Your task to perform on an android device: see creations saved in the google photos Image 0: 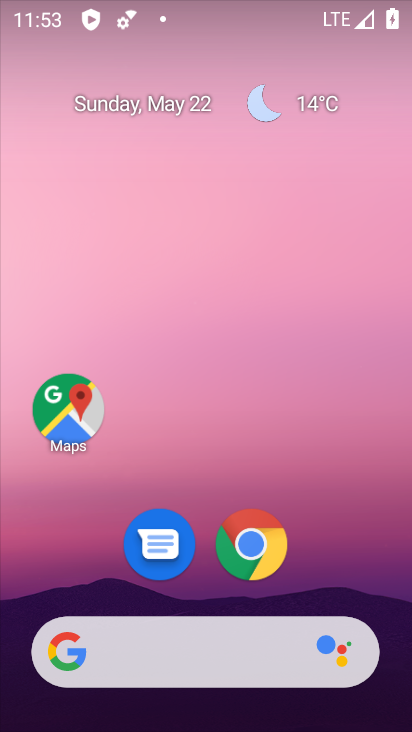
Step 0: drag from (325, 566) to (205, 32)
Your task to perform on an android device: see creations saved in the google photos Image 1: 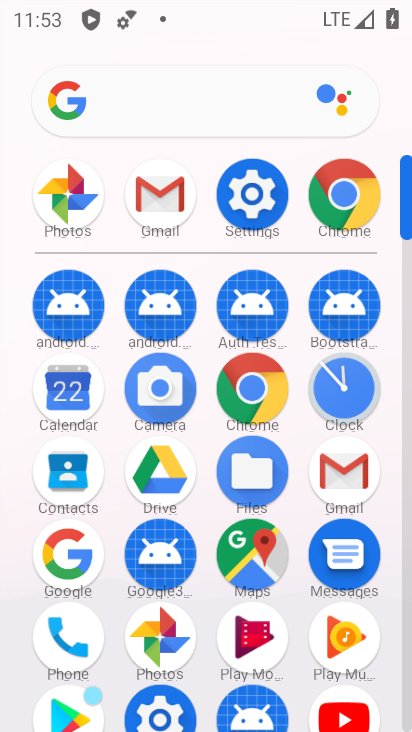
Step 1: press home button
Your task to perform on an android device: see creations saved in the google photos Image 2: 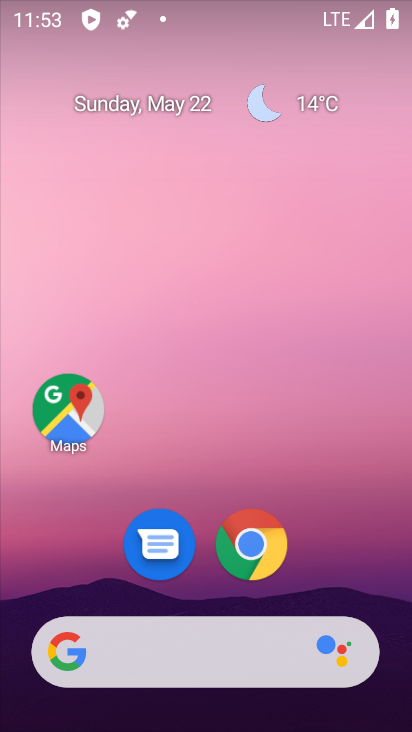
Step 2: drag from (306, 557) to (258, 178)
Your task to perform on an android device: see creations saved in the google photos Image 3: 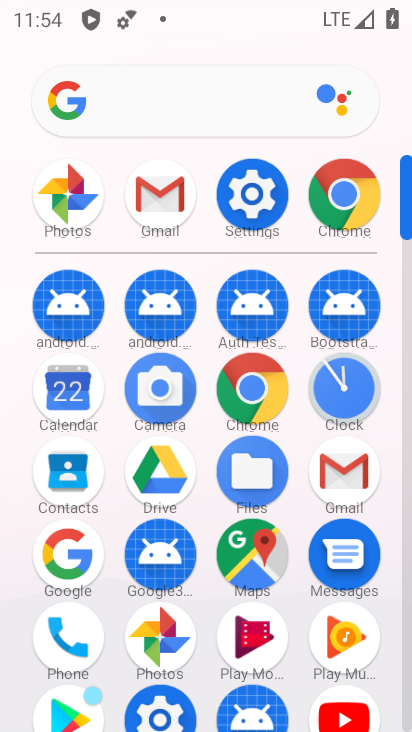
Step 3: drag from (275, 597) to (262, 414)
Your task to perform on an android device: see creations saved in the google photos Image 4: 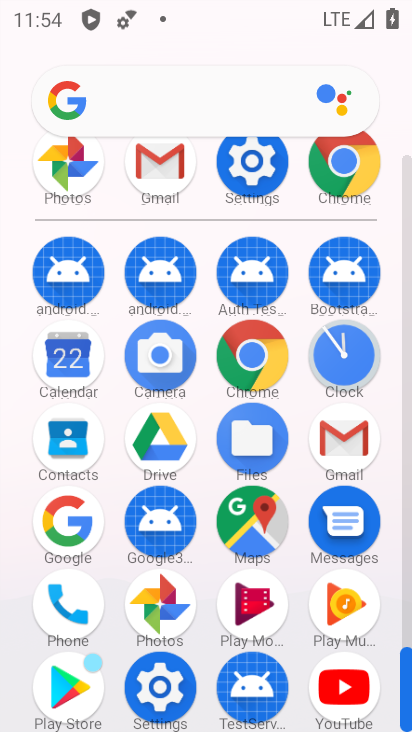
Step 4: drag from (281, 317) to (270, 567)
Your task to perform on an android device: see creations saved in the google photos Image 5: 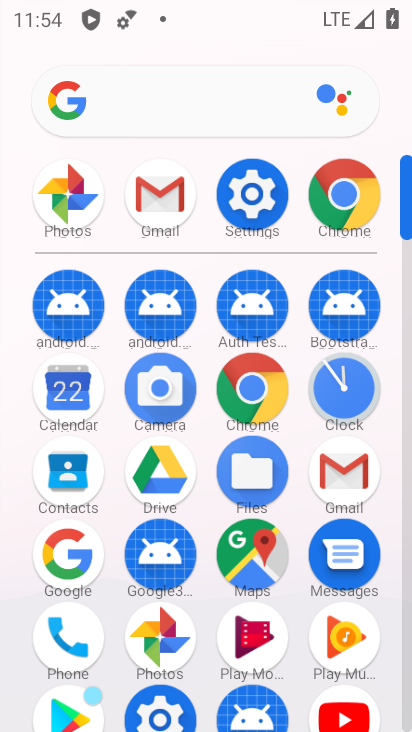
Step 5: drag from (279, 646) to (280, 394)
Your task to perform on an android device: see creations saved in the google photos Image 6: 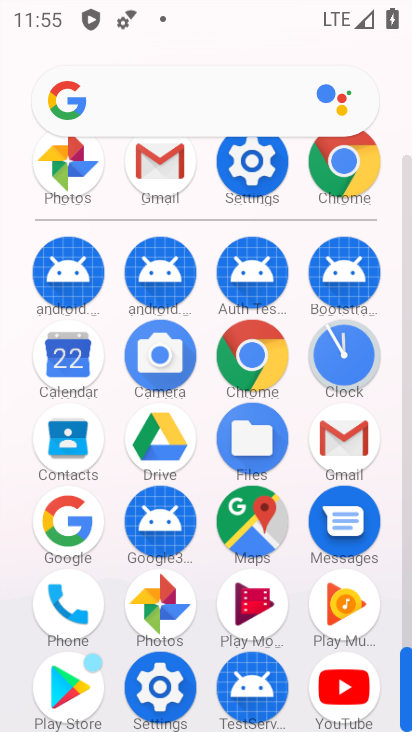
Step 6: drag from (125, 472) to (147, 217)
Your task to perform on an android device: see creations saved in the google photos Image 7: 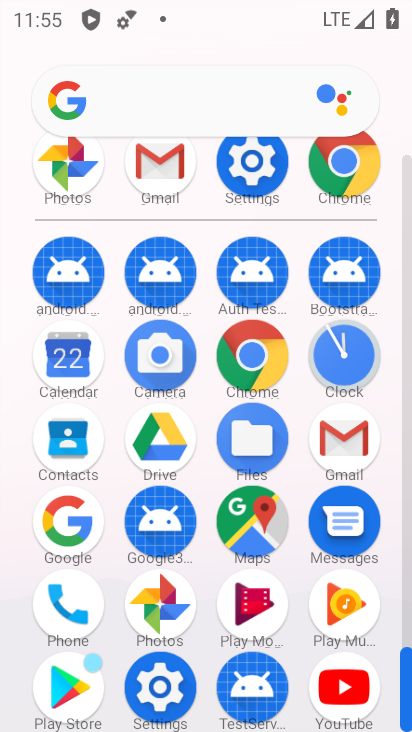
Step 7: drag from (269, 243) to (249, 565)
Your task to perform on an android device: see creations saved in the google photos Image 8: 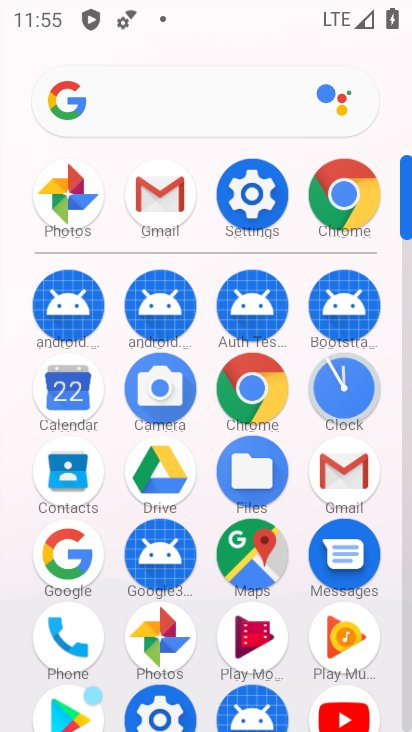
Step 8: drag from (206, 689) to (198, 389)
Your task to perform on an android device: see creations saved in the google photos Image 9: 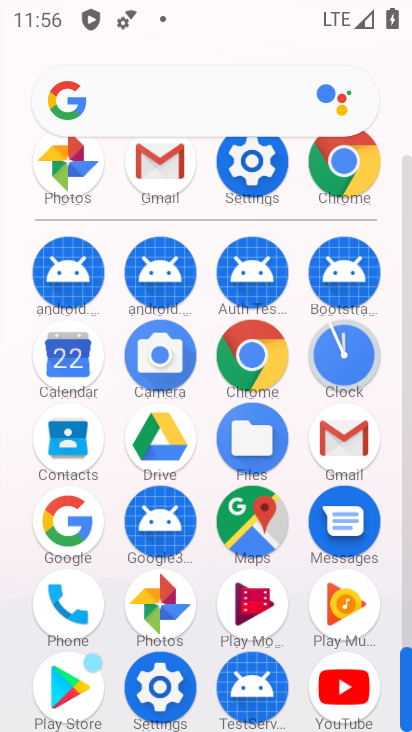
Step 9: drag from (207, 284) to (198, 466)
Your task to perform on an android device: see creations saved in the google photos Image 10: 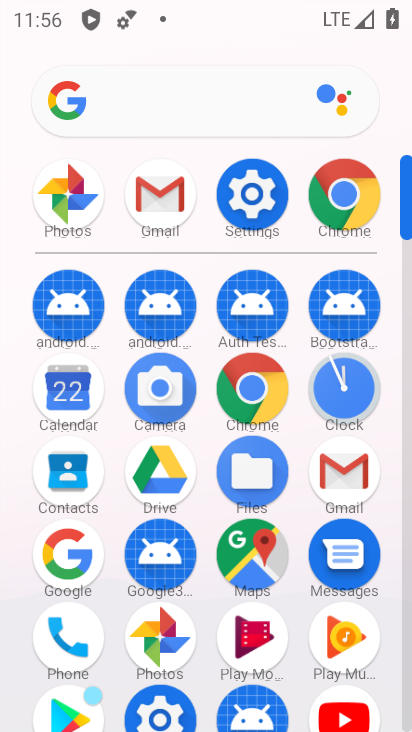
Step 10: drag from (198, 610) to (198, 398)
Your task to perform on an android device: see creations saved in the google photos Image 11: 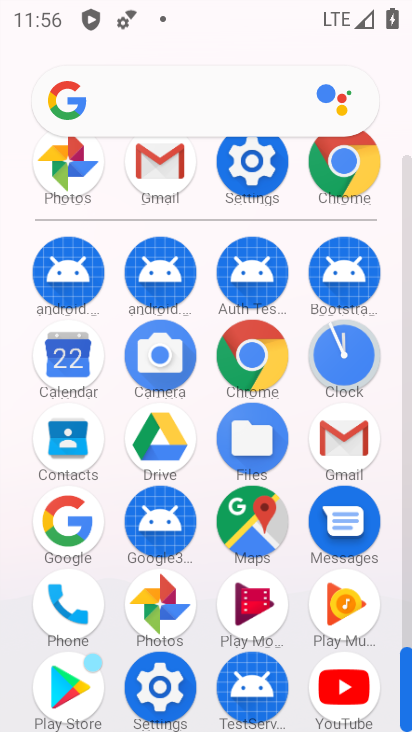
Step 11: drag from (214, 293) to (182, 537)
Your task to perform on an android device: see creations saved in the google photos Image 12: 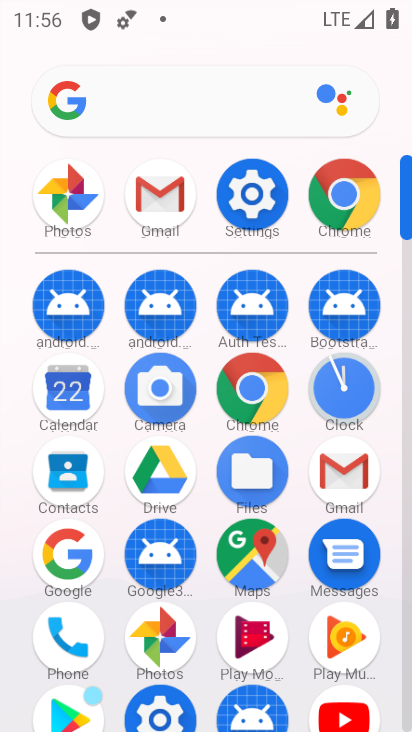
Step 12: drag from (193, 569) to (199, 381)
Your task to perform on an android device: see creations saved in the google photos Image 13: 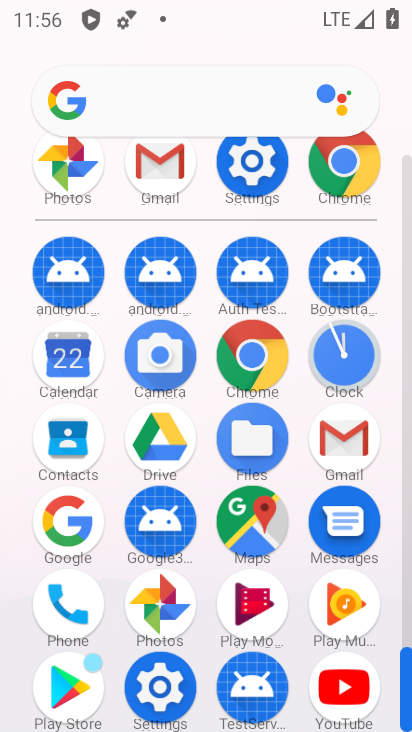
Step 13: click (163, 606)
Your task to perform on an android device: see creations saved in the google photos Image 14: 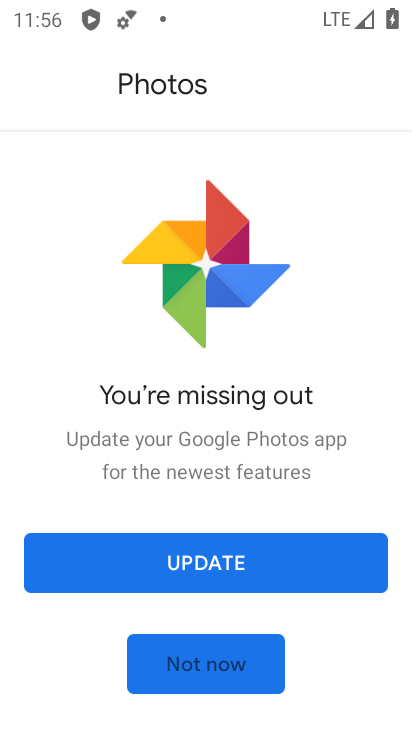
Step 14: click (187, 684)
Your task to perform on an android device: see creations saved in the google photos Image 15: 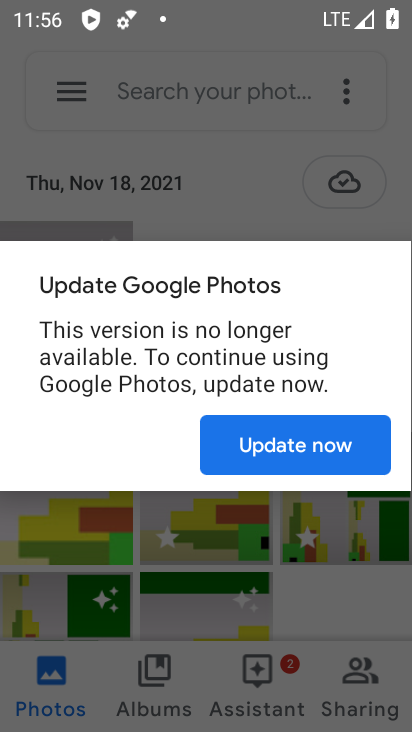
Step 15: click (293, 443)
Your task to perform on an android device: see creations saved in the google photos Image 16: 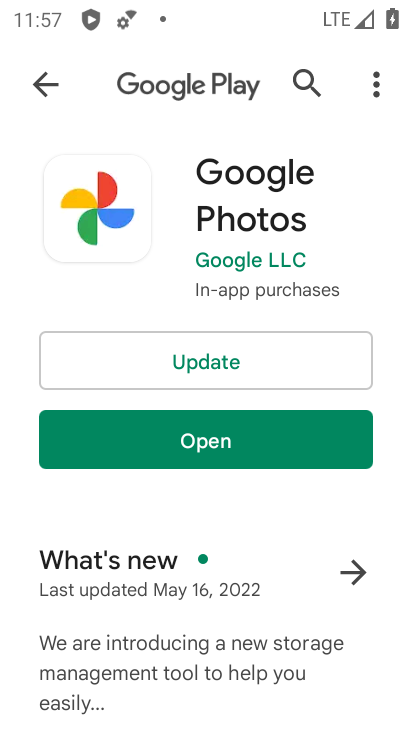
Step 16: click (213, 456)
Your task to perform on an android device: see creations saved in the google photos Image 17: 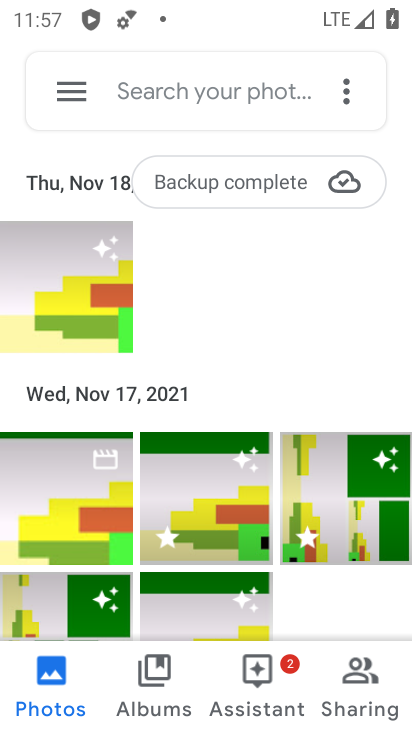
Step 17: click (180, 101)
Your task to perform on an android device: see creations saved in the google photos Image 18: 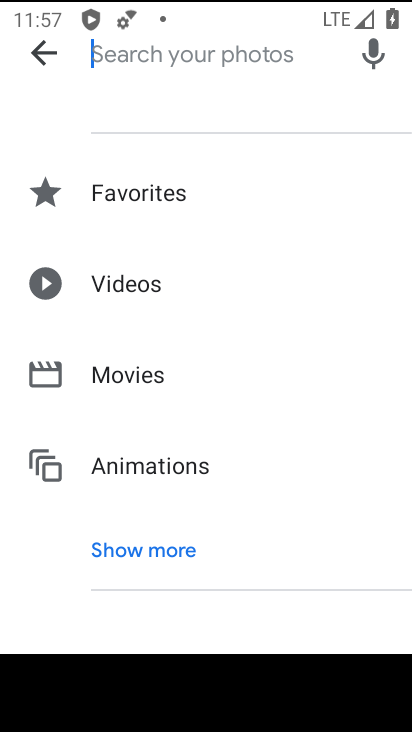
Step 18: click (131, 548)
Your task to perform on an android device: see creations saved in the google photos Image 19: 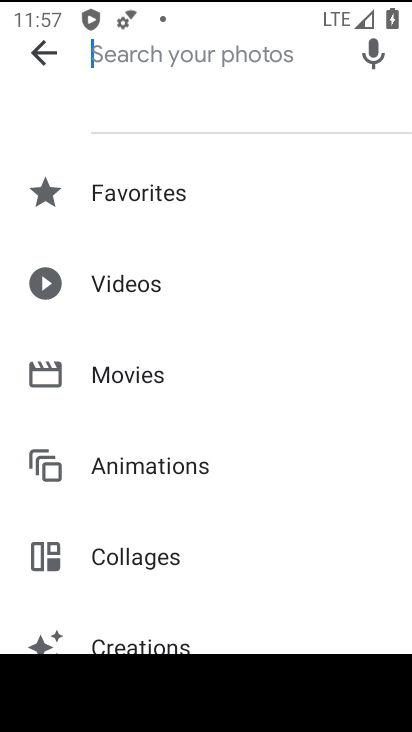
Step 19: click (128, 647)
Your task to perform on an android device: see creations saved in the google photos Image 20: 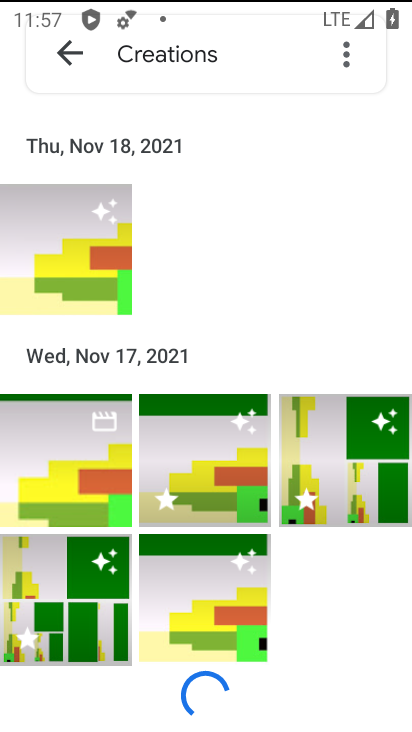
Step 20: task complete